Your task to perform on an android device: open app "Facebook" Image 0: 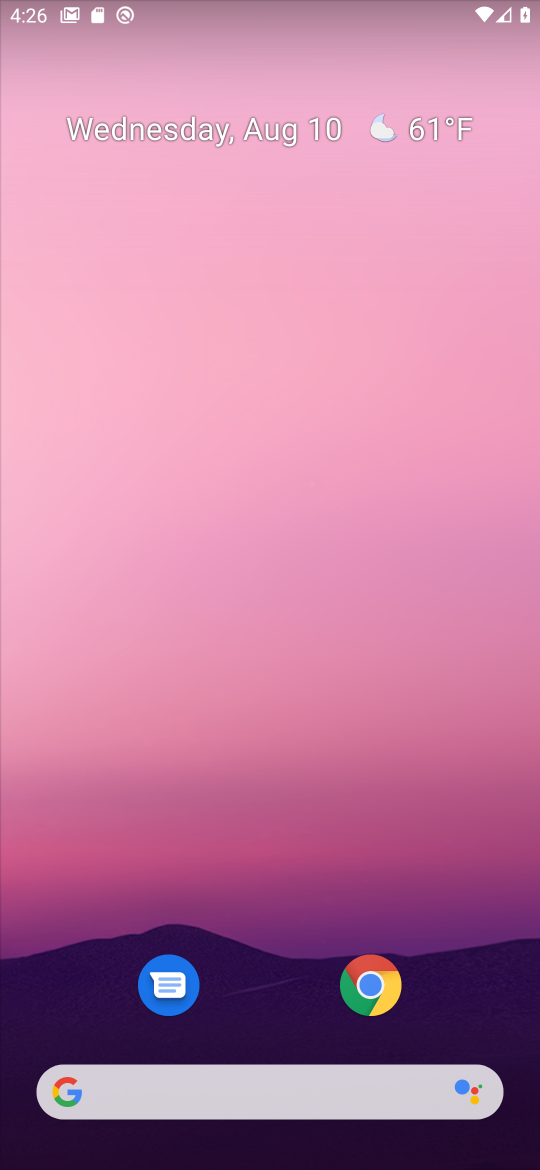
Step 0: drag from (263, 955) to (253, 24)
Your task to perform on an android device: open app "Facebook" Image 1: 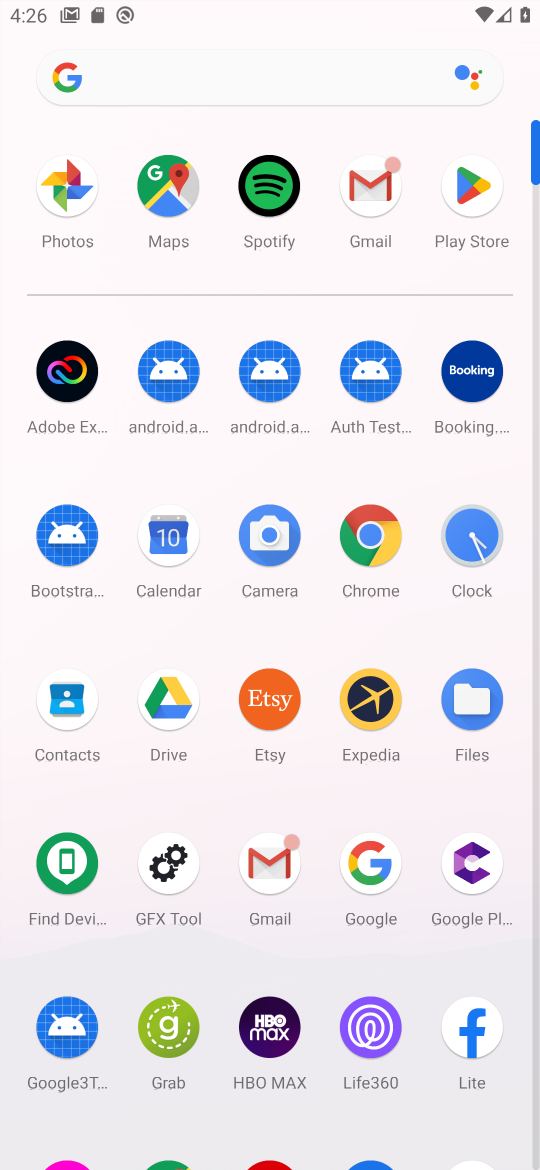
Step 1: click (463, 194)
Your task to perform on an android device: open app "Facebook" Image 2: 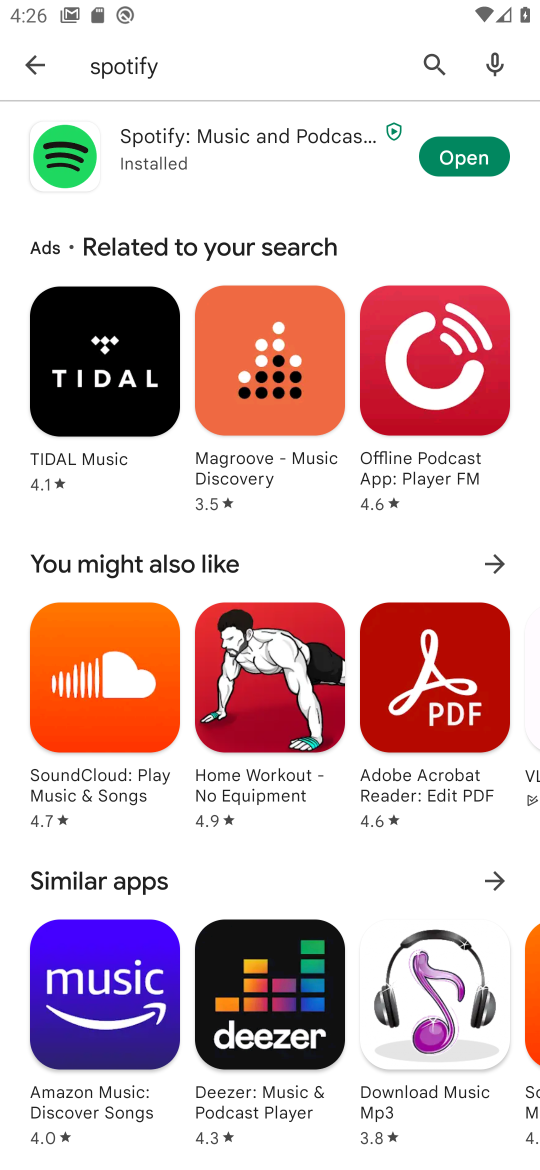
Step 2: click (34, 60)
Your task to perform on an android device: open app "Facebook" Image 3: 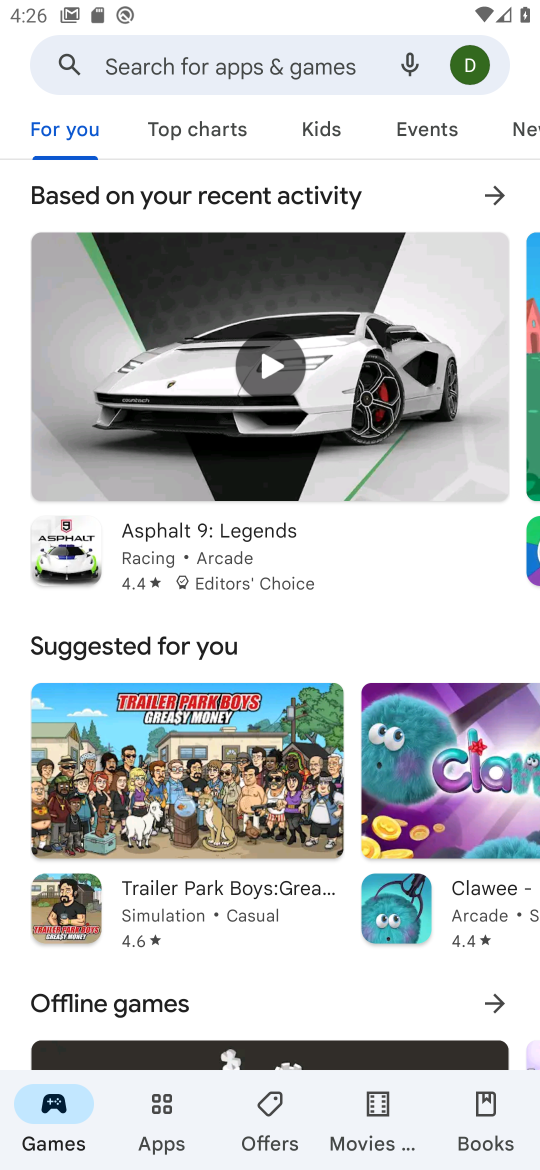
Step 3: click (226, 60)
Your task to perform on an android device: open app "Facebook" Image 4: 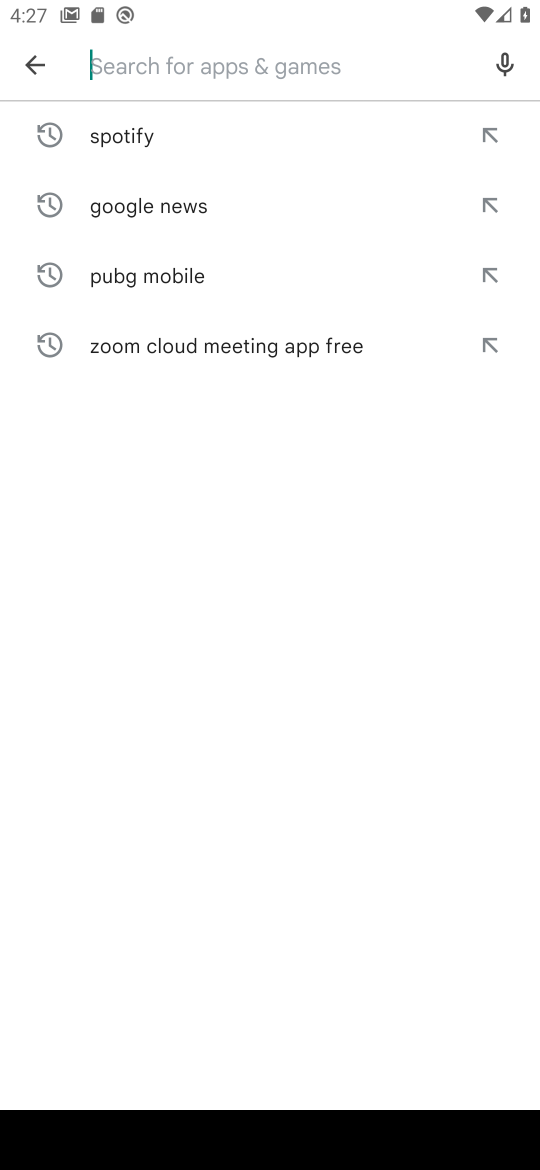
Step 4: type "Facebook"
Your task to perform on an android device: open app "Facebook" Image 5: 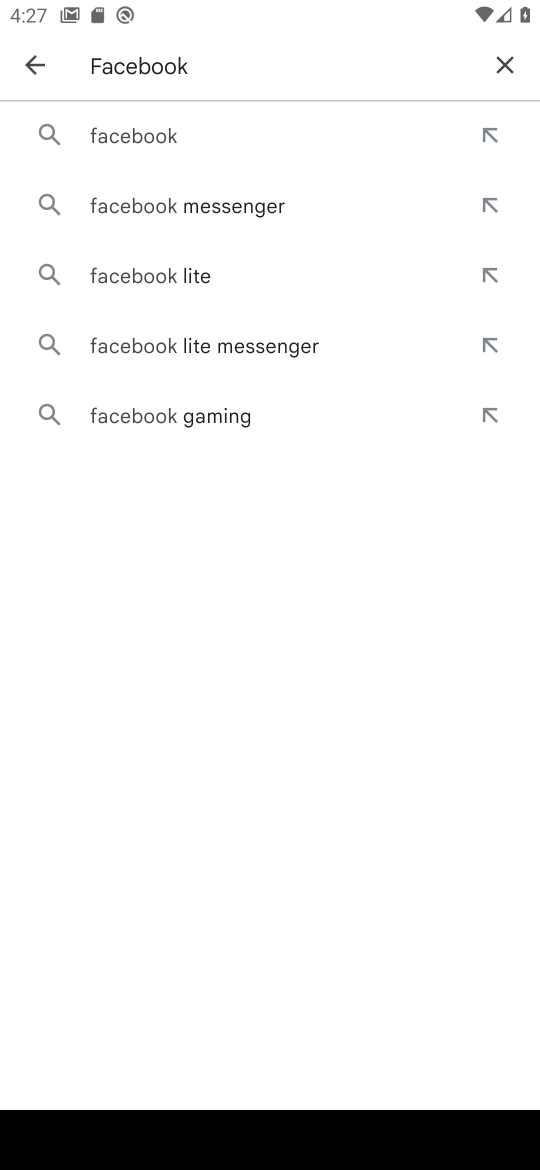
Step 5: click (138, 137)
Your task to perform on an android device: open app "Facebook" Image 6: 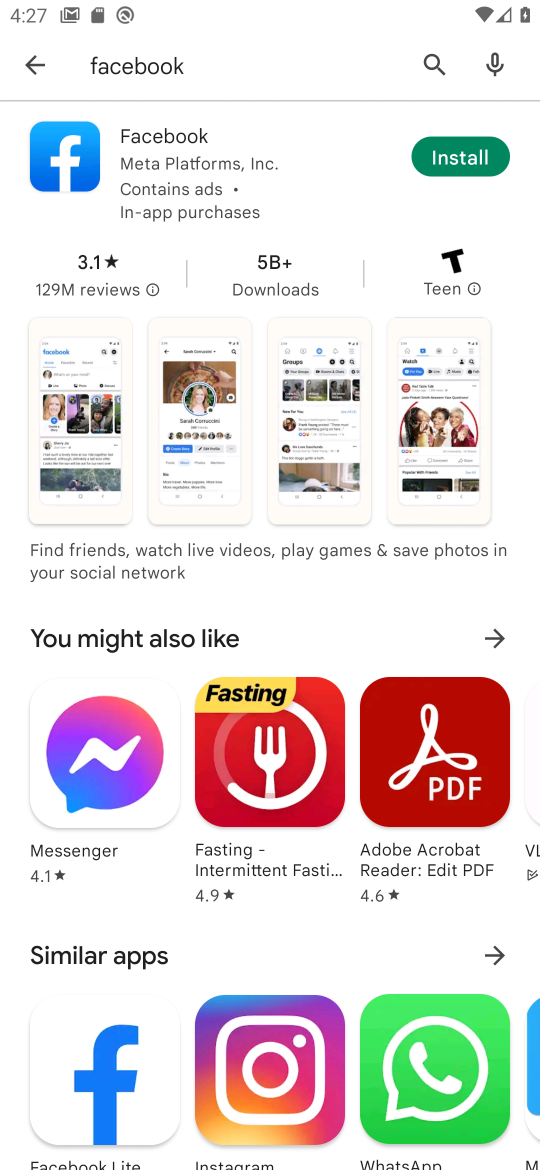
Step 6: click (456, 153)
Your task to perform on an android device: open app "Facebook" Image 7: 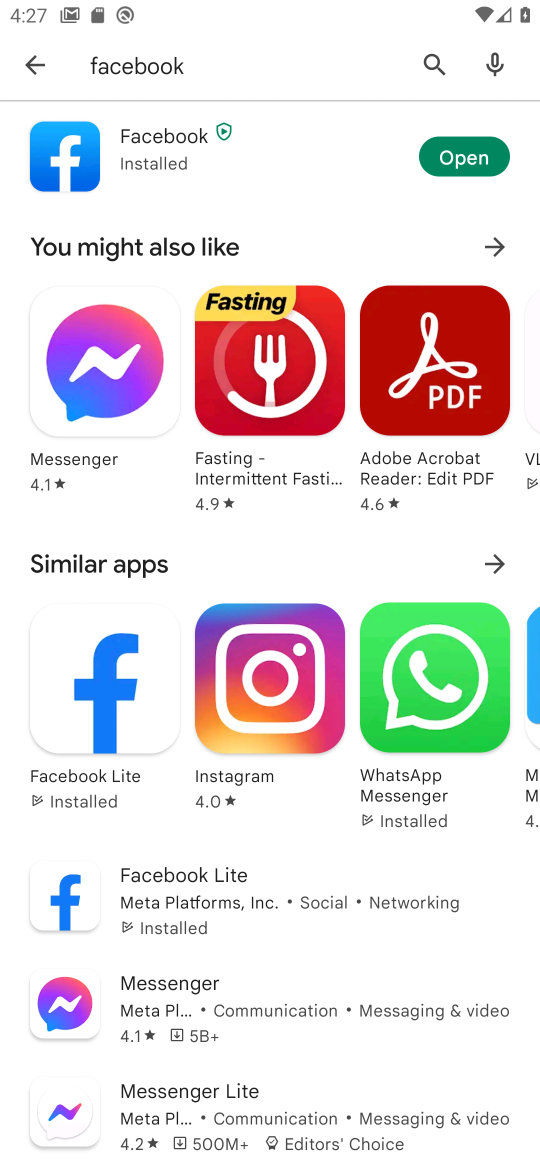
Step 7: click (456, 153)
Your task to perform on an android device: open app "Facebook" Image 8: 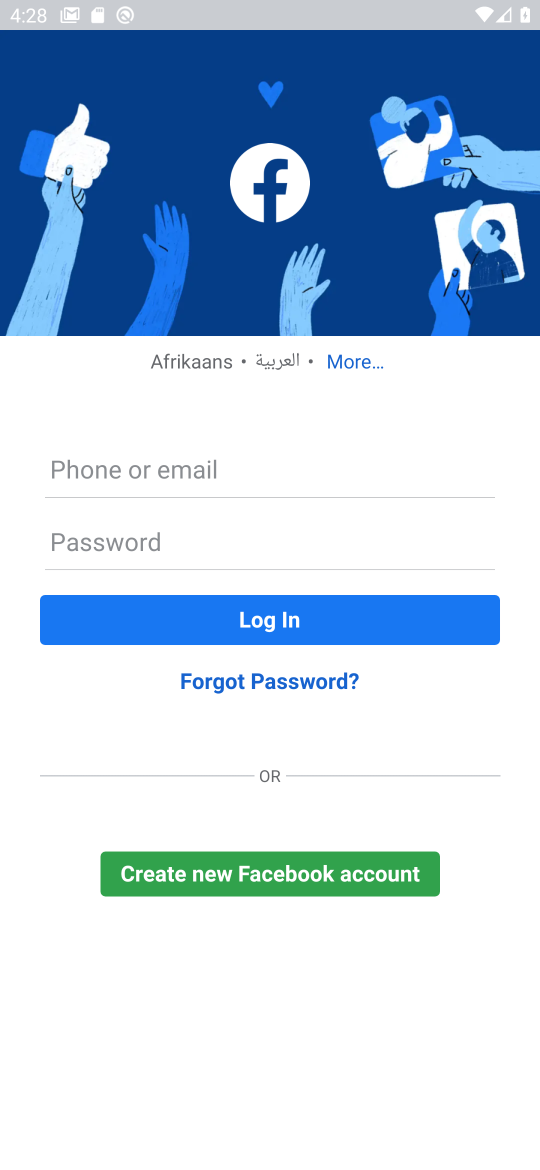
Step 8: task complete